Your task to perform on an android device: move a message to another label in the gmail app Image 0: 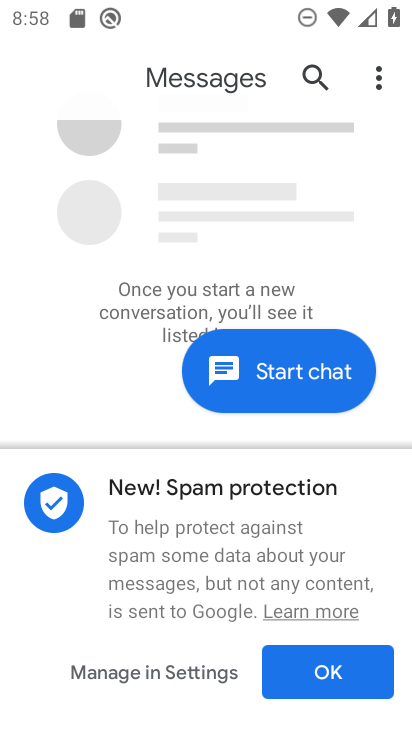
Step 0: click (333, 675)
Your task to perform on an android device: move a message to another label in the gmail app Image 1: 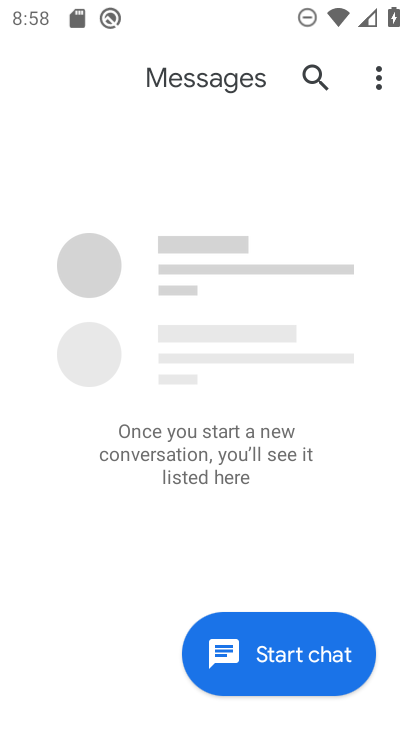
Step 1: press back button
Your task to perform on an android device: move a message to another label in the gmail app Image 2: 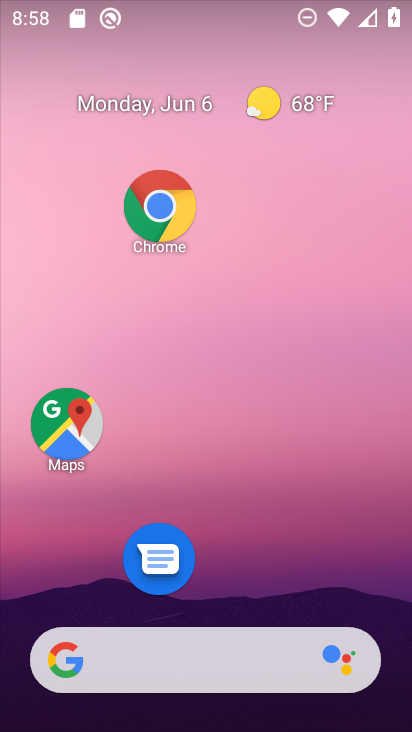
Step 2: drag from (320, 625) to (270, 174)
Your task to perform on an android device: move a message to another label in the gmail app Image 3: 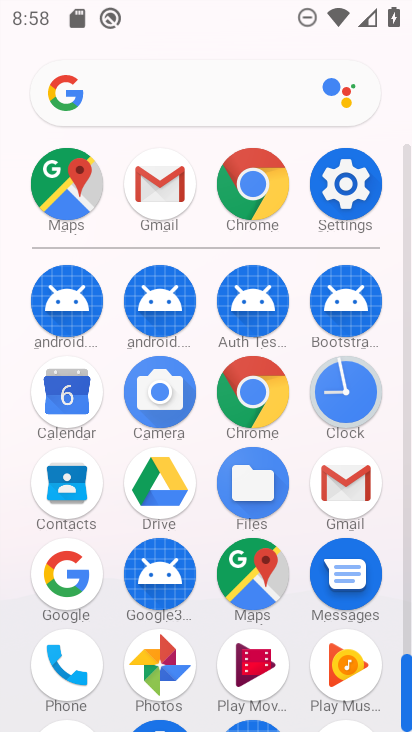
Step 3: click (346, 463)
Your task to perform on an android device: move a message to another label in the gmail app Image 4: 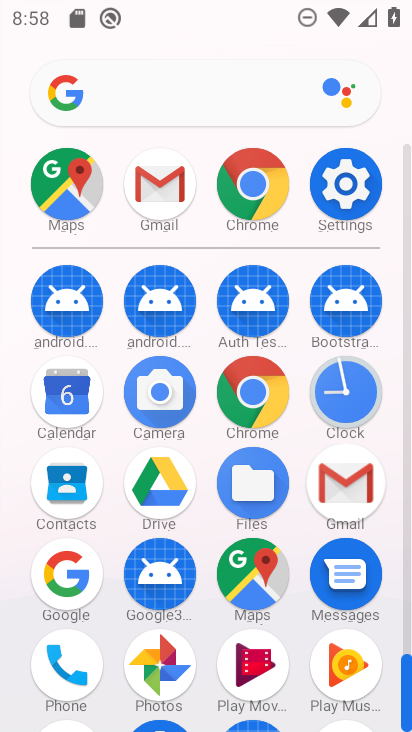
Step 4: click (351, 471)
Your task to perform on an android device: move a message to another label in the gmail app Image 5: 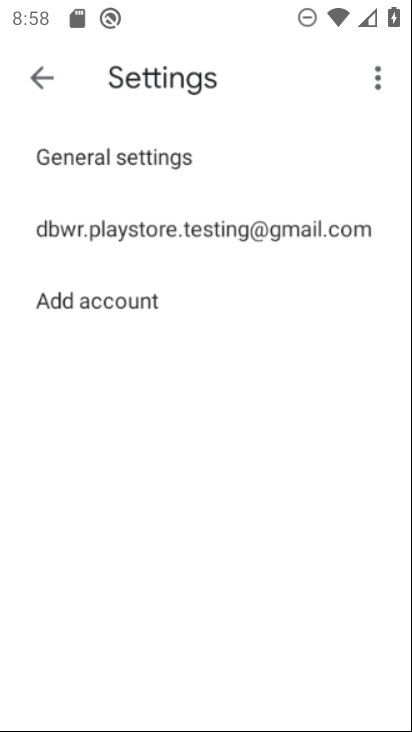
Step 5: click (354, 473)
Your task to perform on an android device: move a message to another label in the gmail app Image 6: 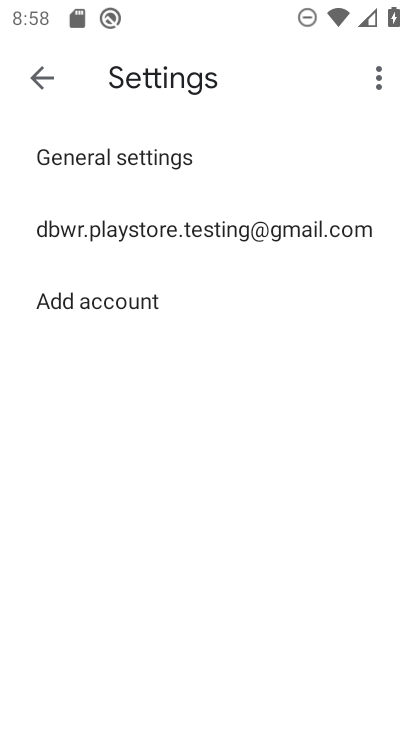
Step 6: click (140, 227)
Your task to perform on an android device: move a message to another label in the gmail app Image 7: 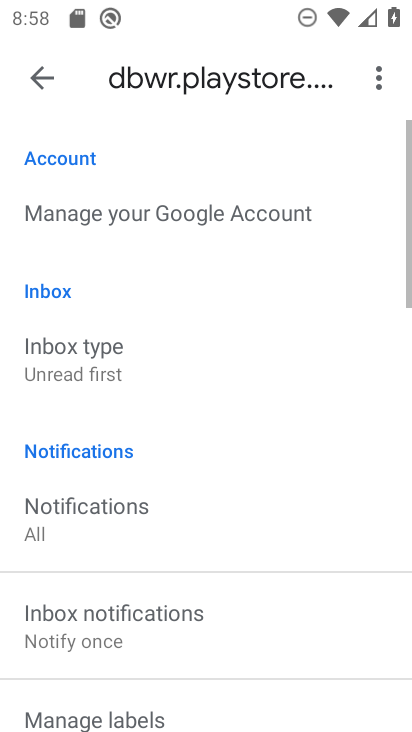
Step 7: click (38, 79)
Your task to perform on an android device: move a message to another label in the gmail app Image 8: 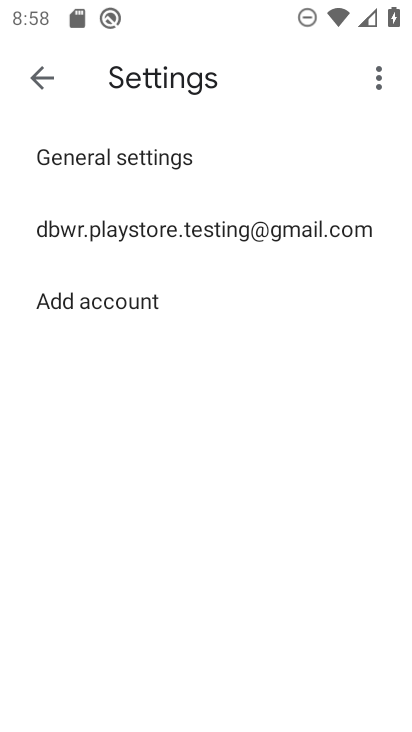
Step 8: click (38, 79)
Your task to perform on an android device: move a message to another label in the gmail app Image 9: 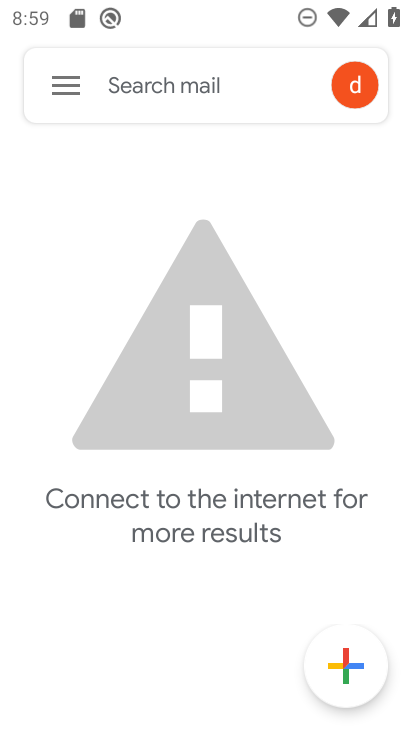
Step 9: press back button
Your task to perform on an android device: move a message to another label in the gmail app Image 10: 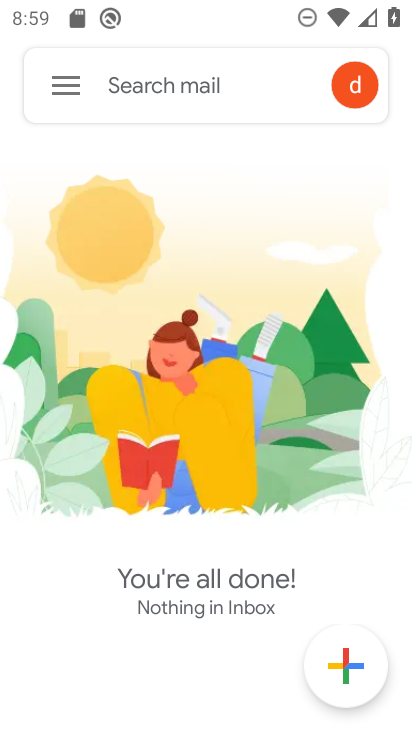
Step 10: press home button
Your task to perform on an android device: move a message to another label in the gmail app Image 11: 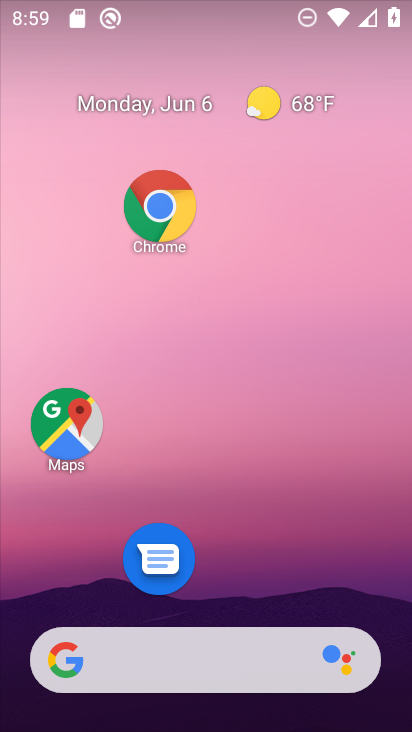
Step 11: drag from (262, 580) to (178, 195)
Your task to perform on an android device: move a message to another label in the gmail app Image 12: 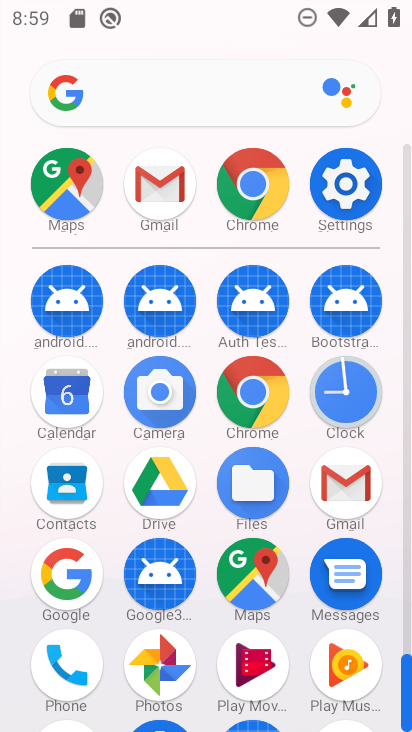
Step 12: click (339, 470)
Your task to perform on an android device: move a message to another label in the gmail app Image 13: 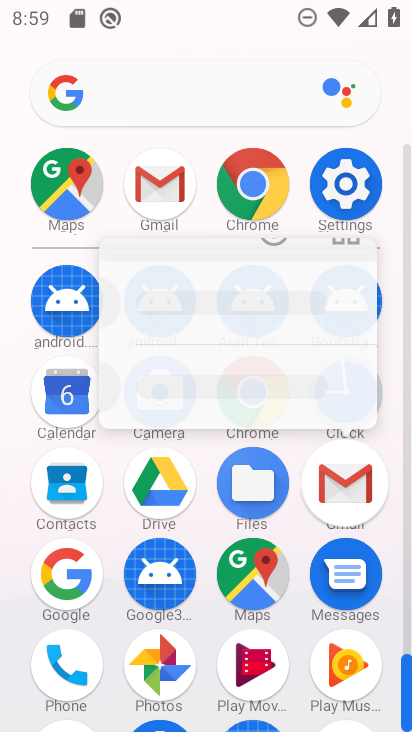
Step 13: click (342, 473)
Your task to perform on an android device: move a message to another label in the gmail app Image 14: 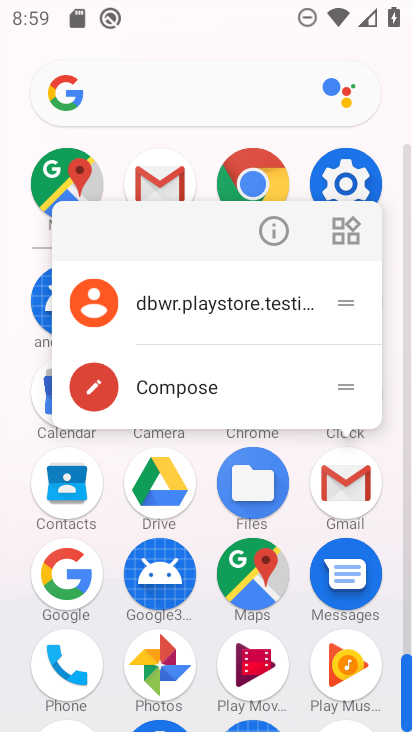
Step 14: click (342, 472)
Your task to perform on an android device: move a message to another label in the gmail app Image 15: 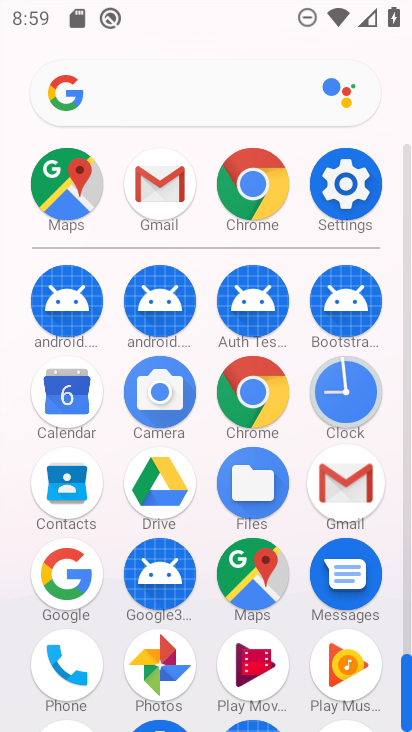
Step 15: click (342, 473)
Your task to perform on an android device: move a message to another label in the gmail app Image 16: 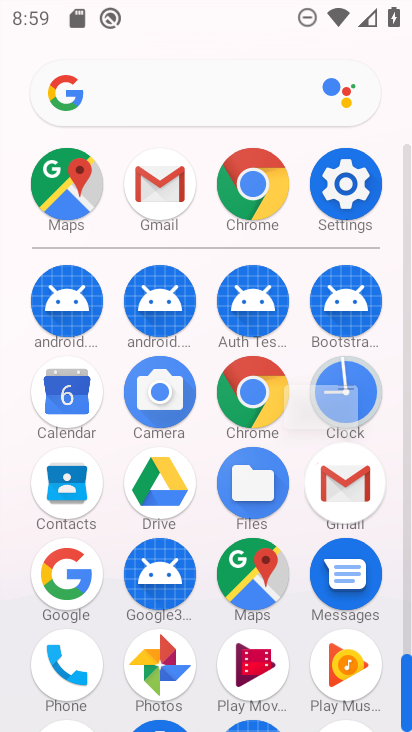
Step 16: click (343, 475)
Your task to perform on an android device: move a message to another label in the gmail app Image 17: 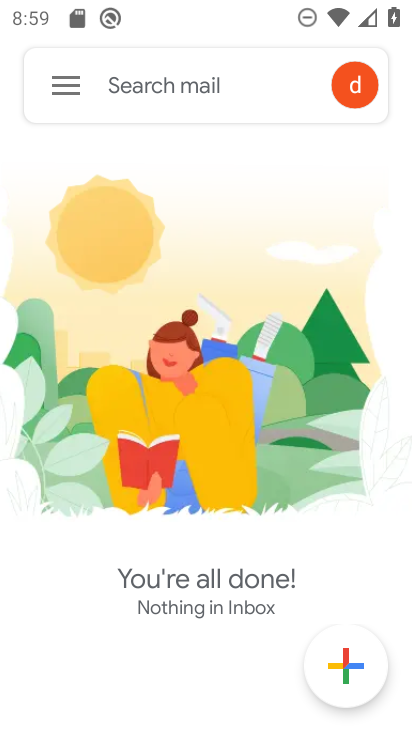
Step 17: drag from (66, 92) to (88, 281)
Your task to perform on an android device: move a message to another label in the gmail app Image 18: 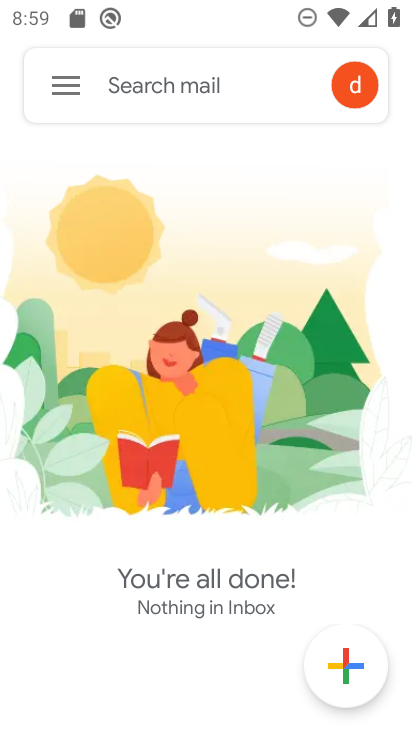
Step 18: click (64, 90)
Your task to perform on an android device: move a message to another label in the gmail app Image 19: 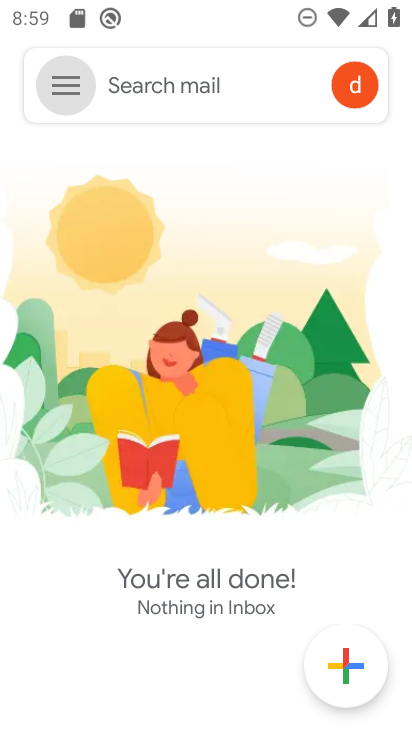
Step 19: click (64, 90)
Your task to perform on an android device: move a message to another label in the gmail app Image 20: 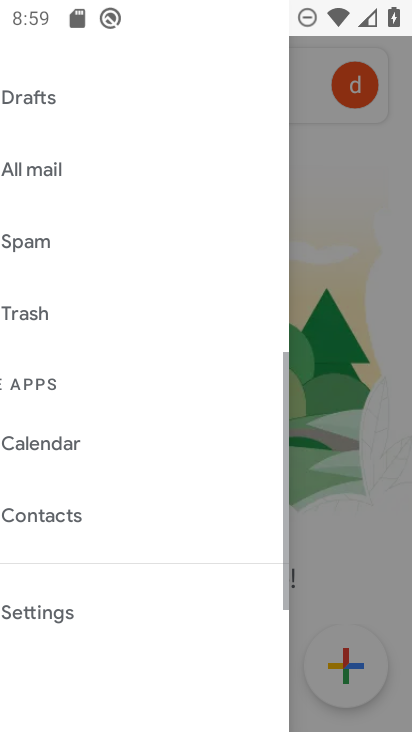
Step 20: drag from (64, 90) to (151, 170)
Your task to perform on an android device: move a message to another label in the gmail app Image 21: 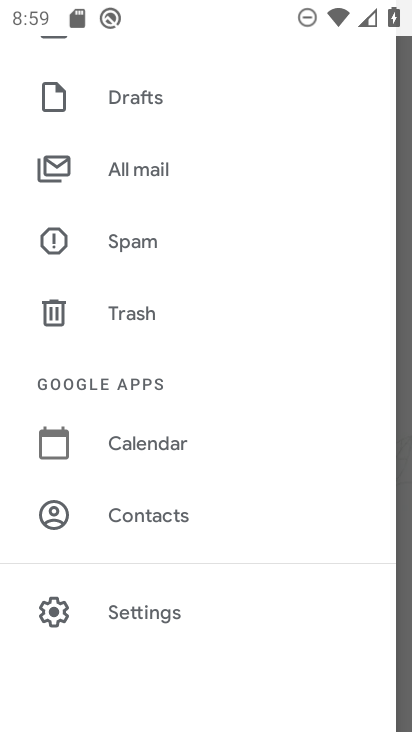
Step 21: click (137, 165)
Your task to perform on an android device: move a message to another label in the gmail app Image 22: 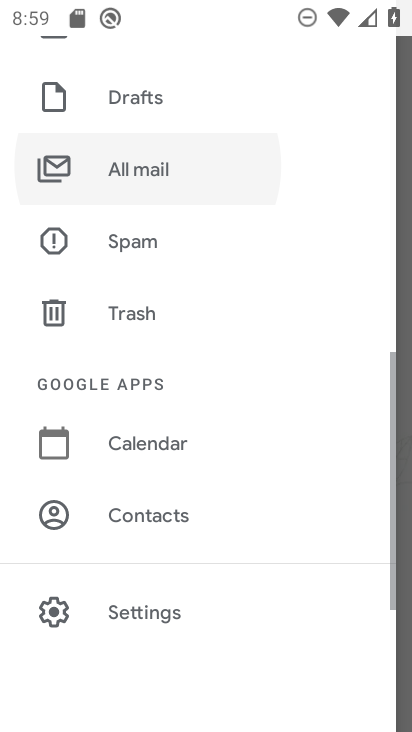
Step 22: click (137, 165)
Your task to perform on an android device: move a message to another label in the gmail app Image 23: 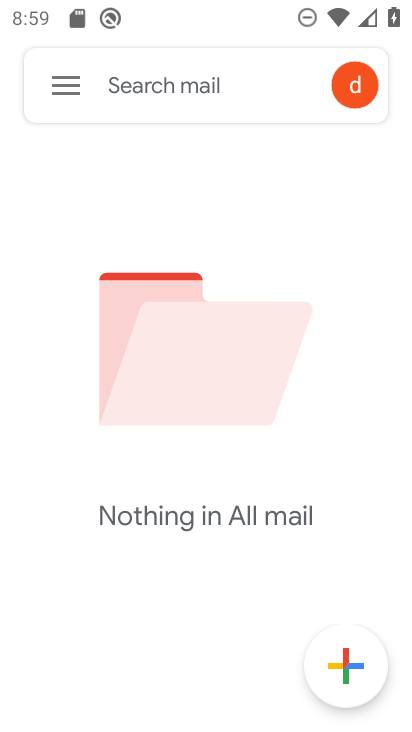
Step 23: task complete